Your task to perform on an android device: refresh tabs in the chrome app Image 0: 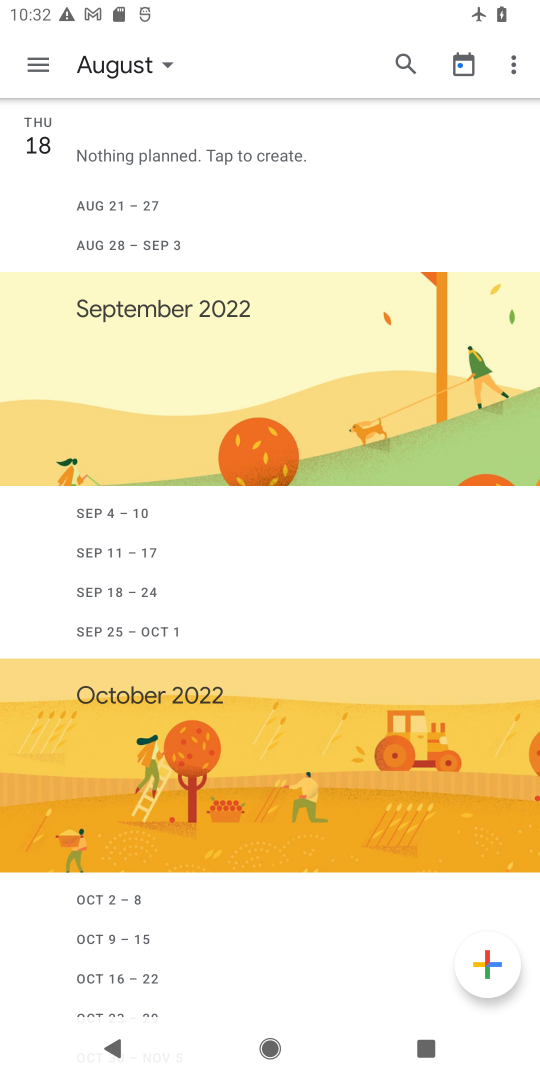
Step 0: press home button
Your task to perform on an android device: refresh tabs in the chrome app Image 1: 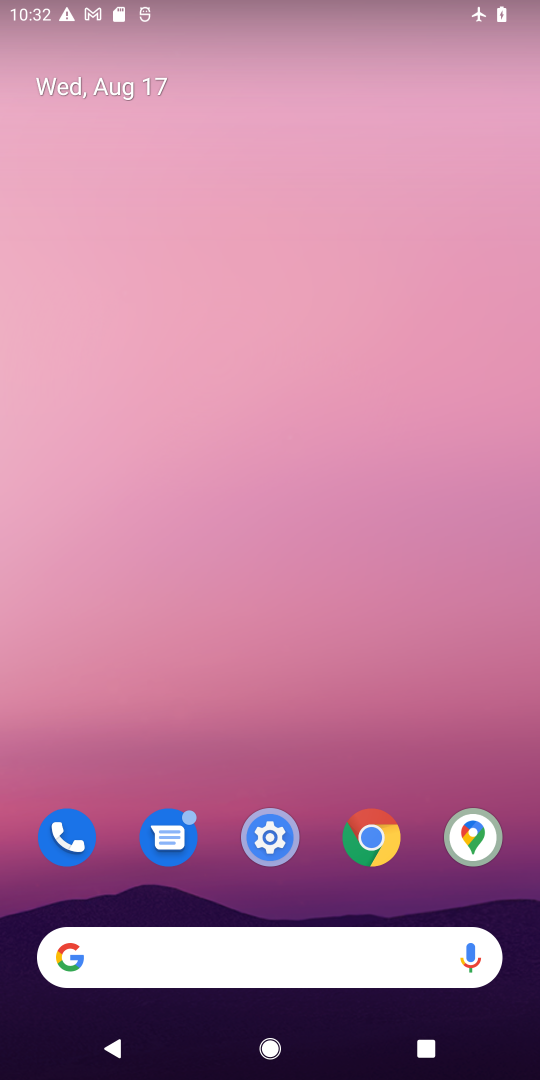
Step 1: click (369, 839)
Your task to perform on an android device: refresh tabs in the chrome app Image 2: 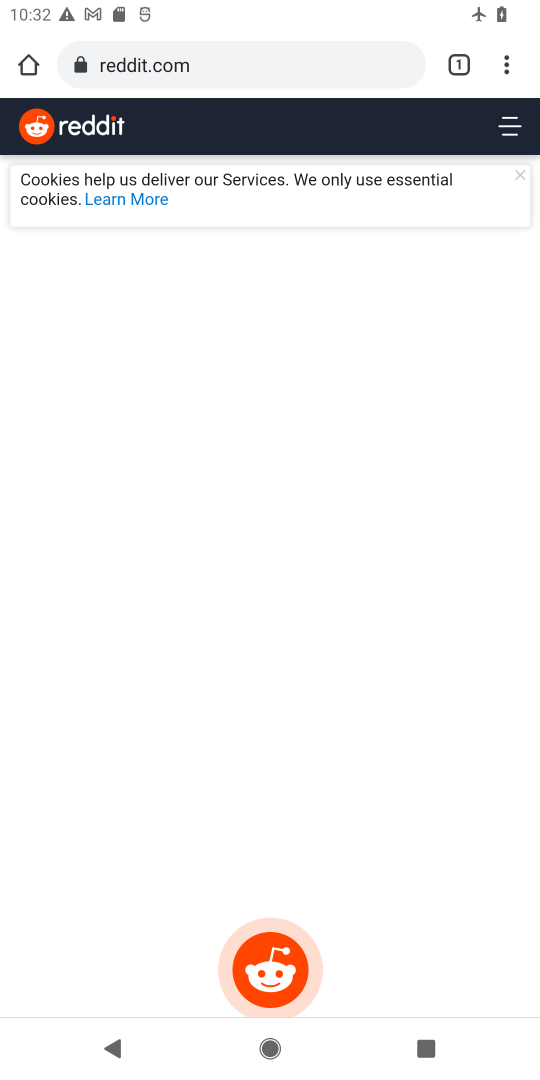
Step 2: click (520, 68)
Your task to perform on an android device: refresh tabs in the chrome app Image 3: 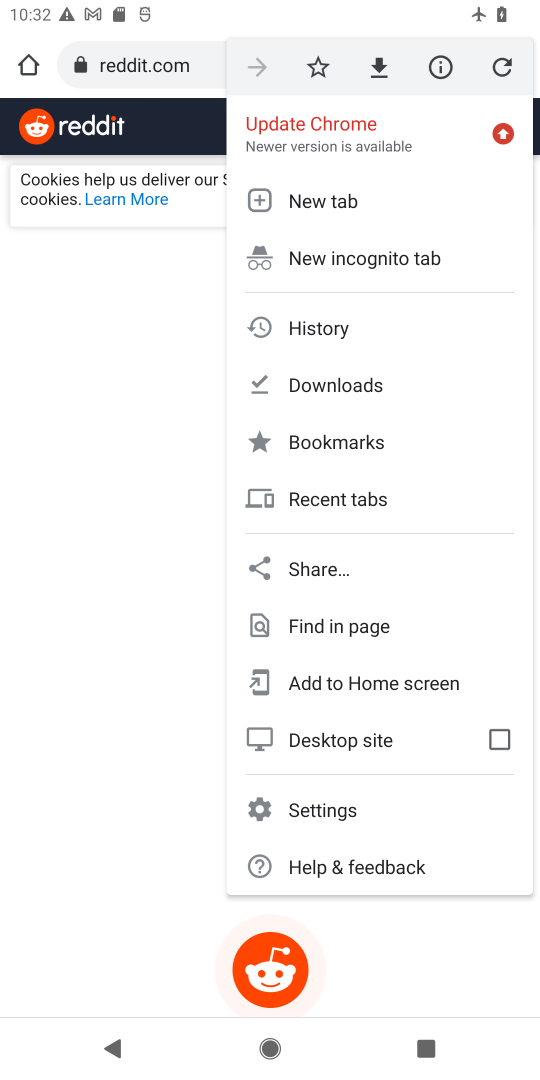
Step 3: click (503, 70)
Your task to perform on an android device: refresh tabs in the chrome app Image 4: 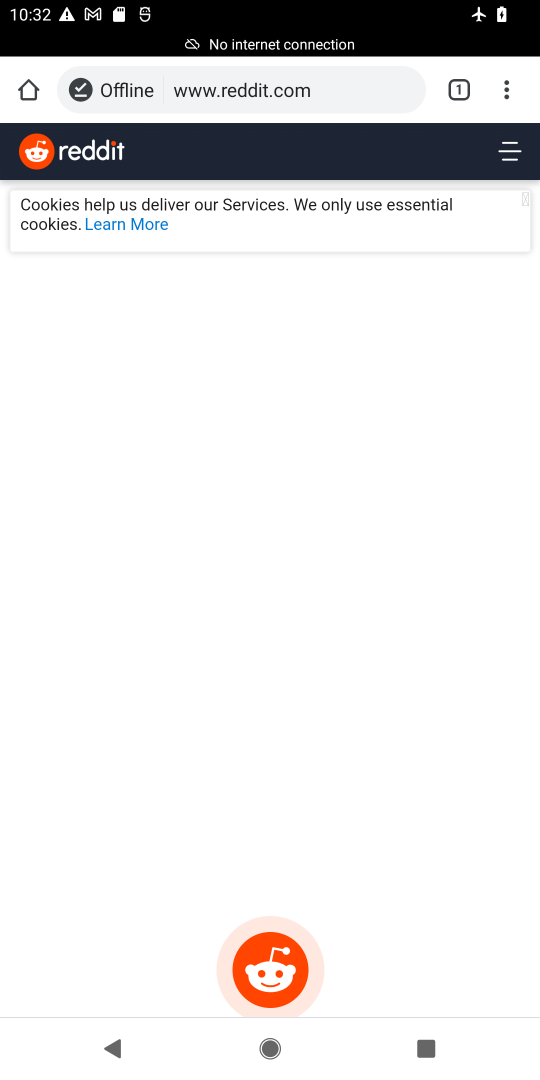
Step 4: task complete